Your task to perform on an android device: When is my next appointment? Image 0: 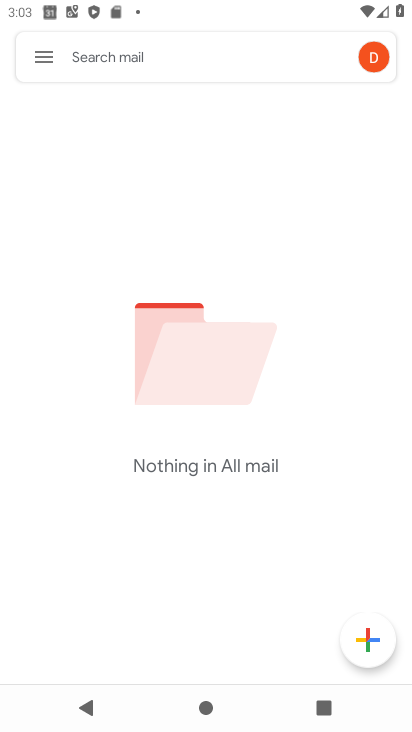
Step 0: press home button
Your task to perform on an android device: When is my next appointment? Image 1: 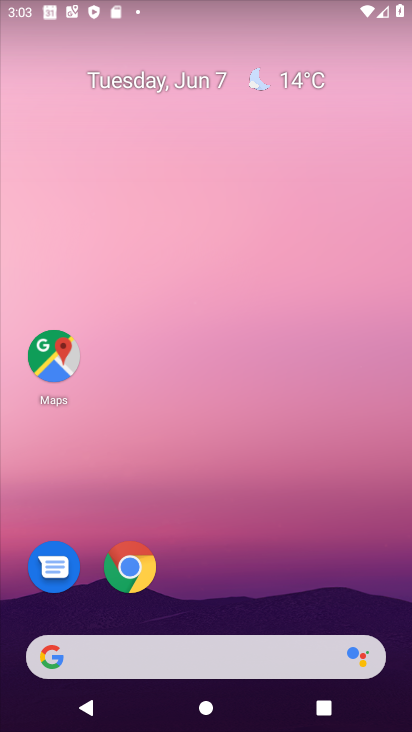
Step 1: drag from (221, 604) to (216, 245)
Your task to perform on an android device: When is my next appointment? Image 2: 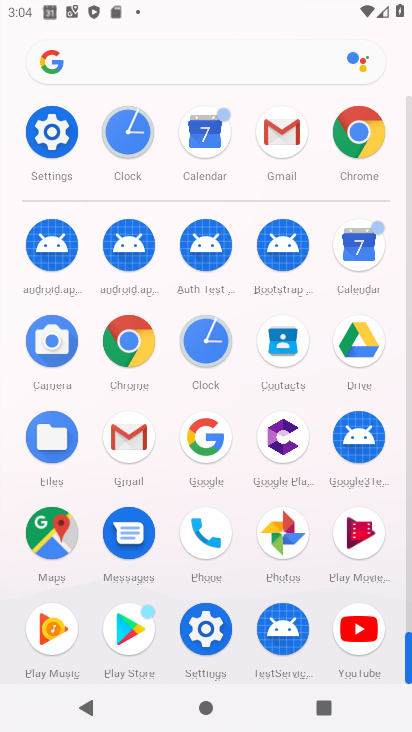
Step 2: click (342, 260)
Your task to perform on an android device: When is my next appointment? Image 3: 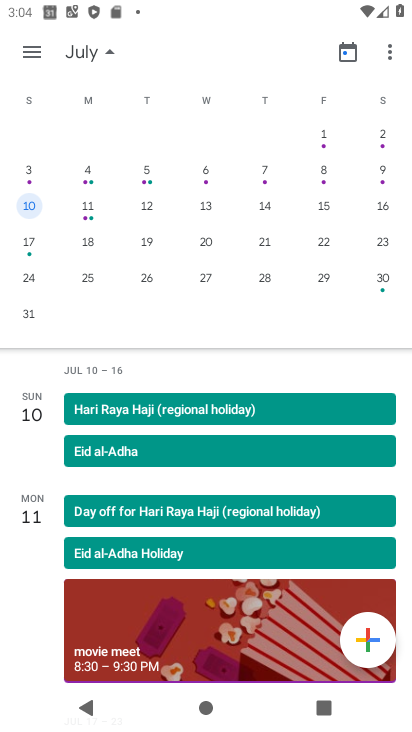
Step 3: task complete